Your task to perform on an android device: open chrome privacy settings Image 0: 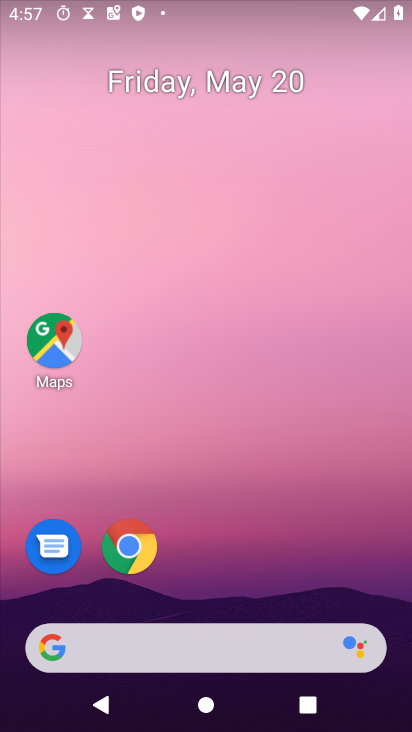
Step 0: click (130, 545)
Your task to perform on an android device: open chrome privacy settings Image 1: 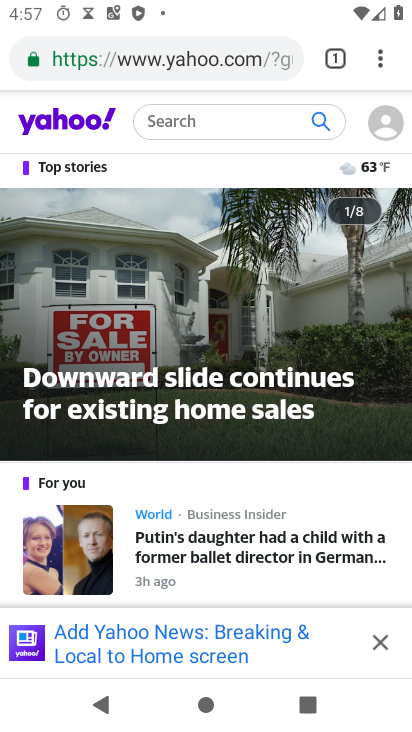
Step 1: click (380, 53)
Your task to perform on an android device: open chrome privacy settings Image 2: 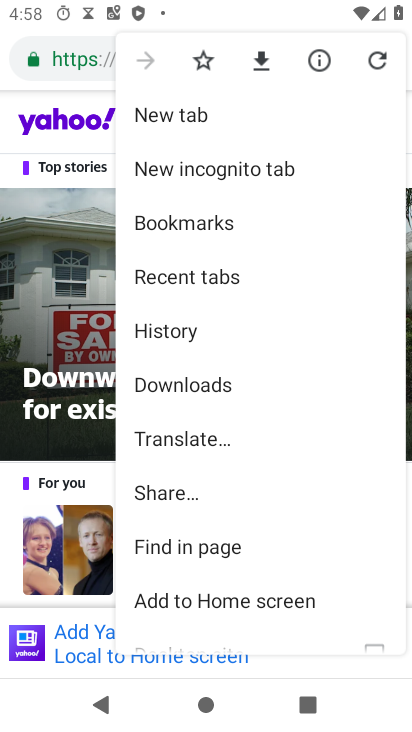
Step 2: drag from (255, 520) to (268, 381)
Your task to perform on an android device: open chrome privacy settings Image 3: 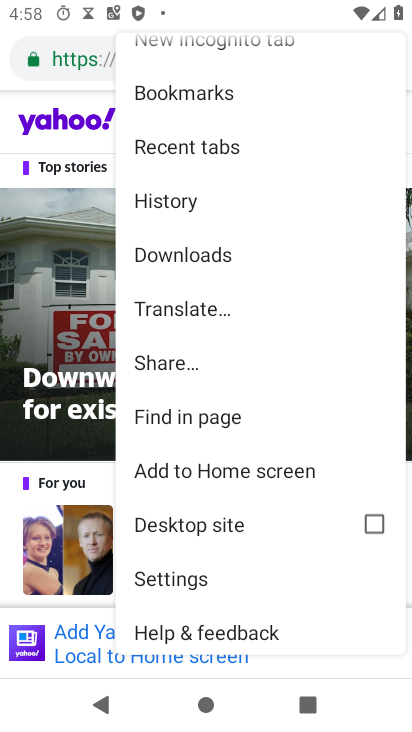
Step 3: click (187, 584)
Your task to perform on an android device: open chrome privacy settings Image 4: 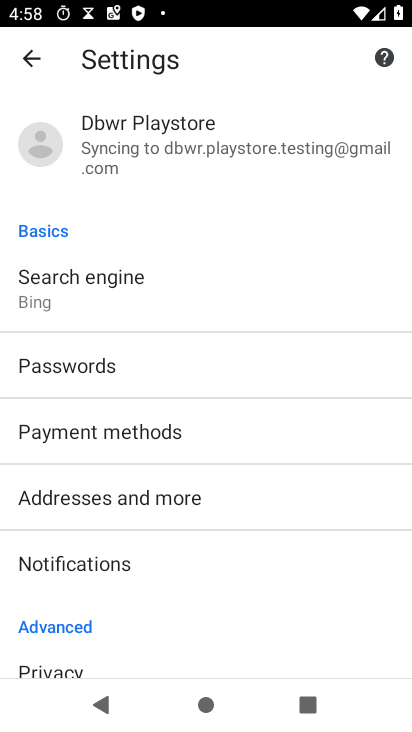
Step 4: drag from (138, 589) to (216, 462)
Your task to perform on an android device: open chrome privacy settings Image 5: 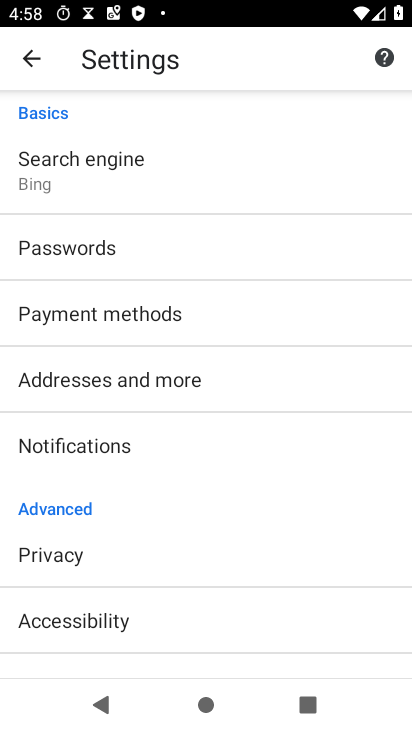
Step 5: click (72, 549)
Your task to perform on an android device: open chrome privacy settings Image 6: 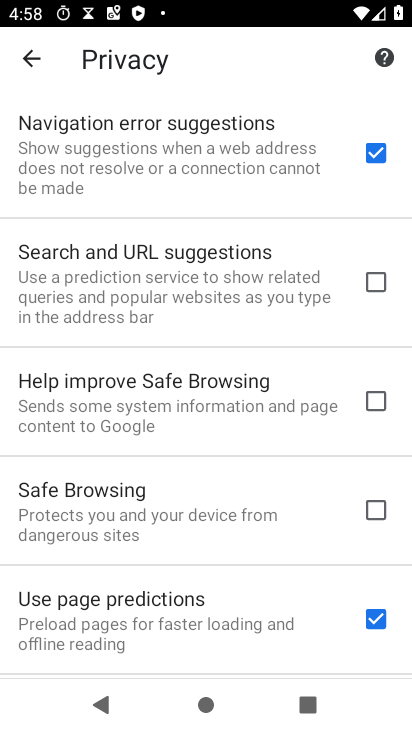
Step 6: task complete